Your task to perform on an android device: Open Amazon Image 0: 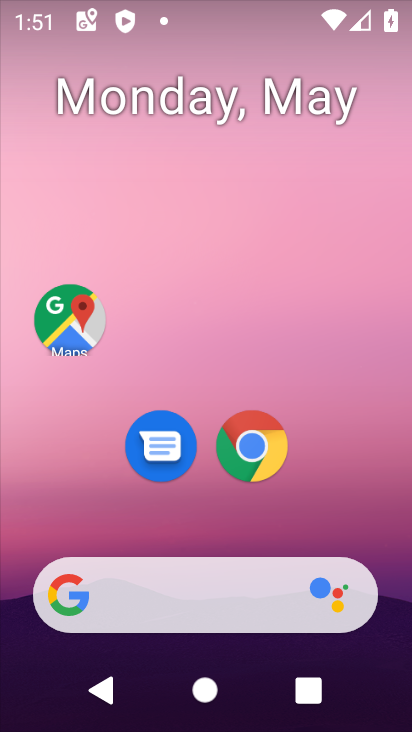
Step 0: click (239, 437)
Your task to perform on an android device: Open Amazon Image 1: 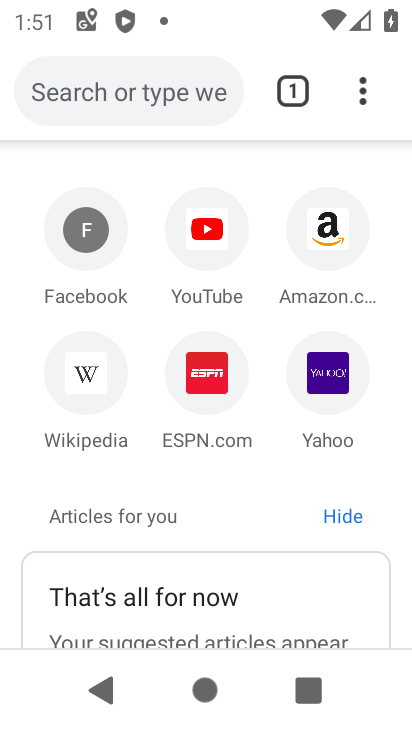
Step 1: click (367, 223)
Your task to perform on an android device: Open Amazon Image 2: 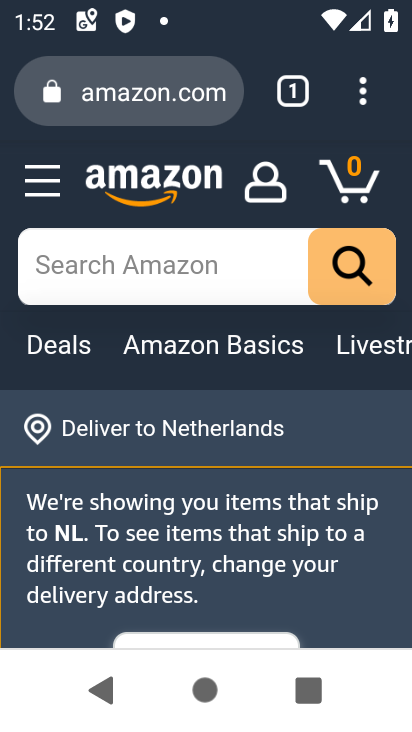
Step 2: task complete